Your task to perform on an android device: Open the phone app and click the voicemail tab. Image 0: 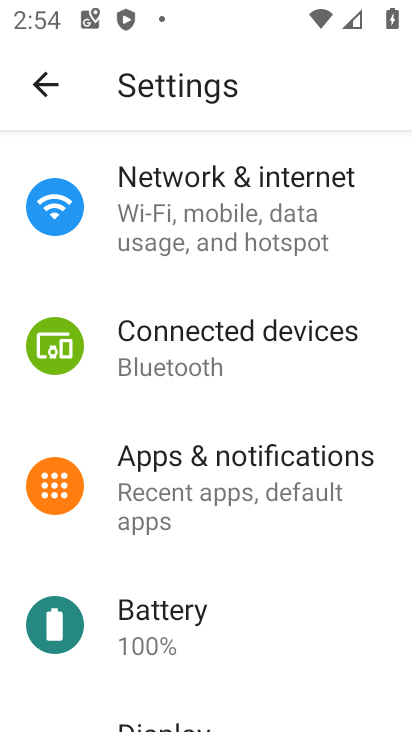
Step 0: press home button
Your task to perform on an android device: Open the phone app and click the voicemail tab. Image 1: 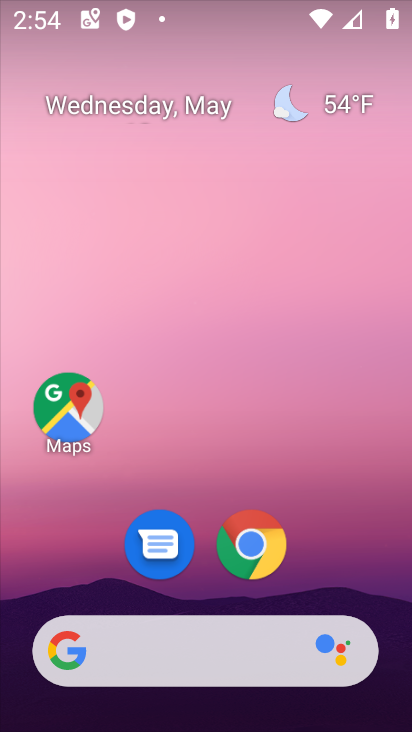
Step 1: drag from (342, 572) to (374, 184)
Your task to perform on an android device: Open the phone app and click the voicemail tab. Image 2: 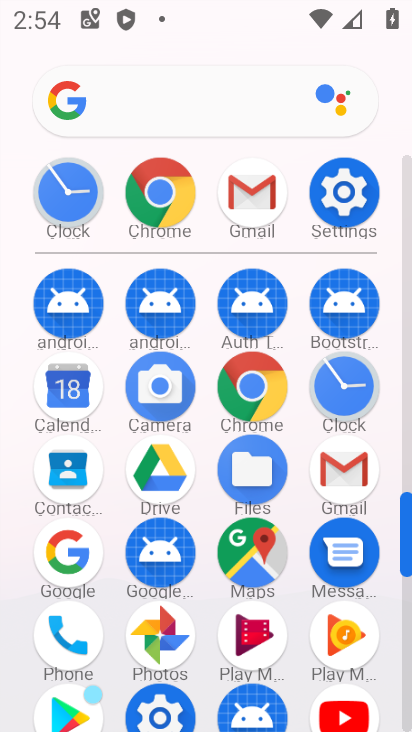
Step 2: click (405, 659)
Your task to perform on an android device: Open the phone app and click the voicemail tab. Image 3: 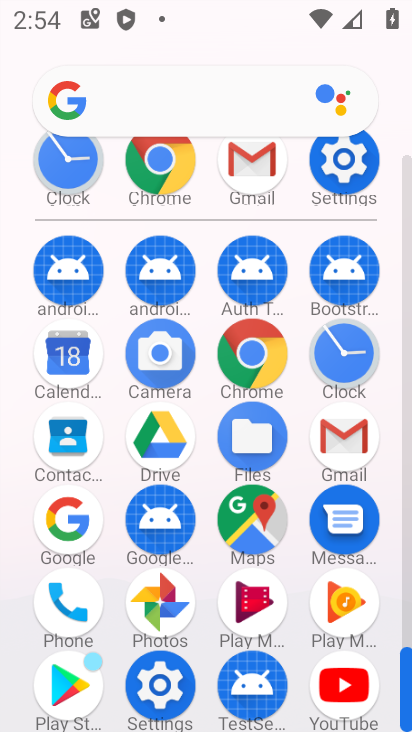
Step 3: click (83, 597)
Your task to perform on an android device: Open the phone app and click the voicemail tab. Image 4: 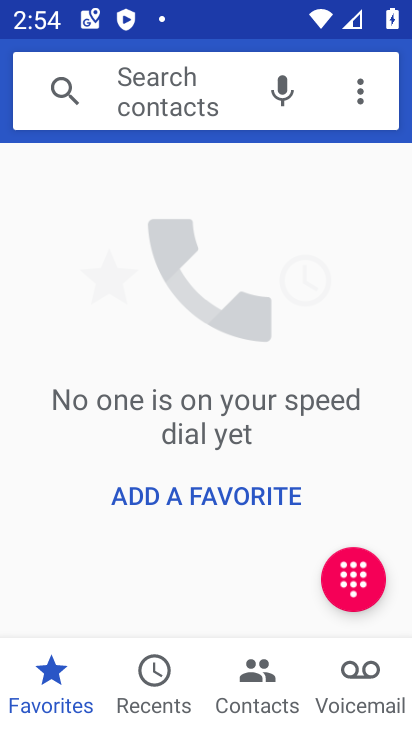
Step 4: click (354, 656)
Your task to perform on an android device: Open the phone app and click the voicemail tab. Image 5: 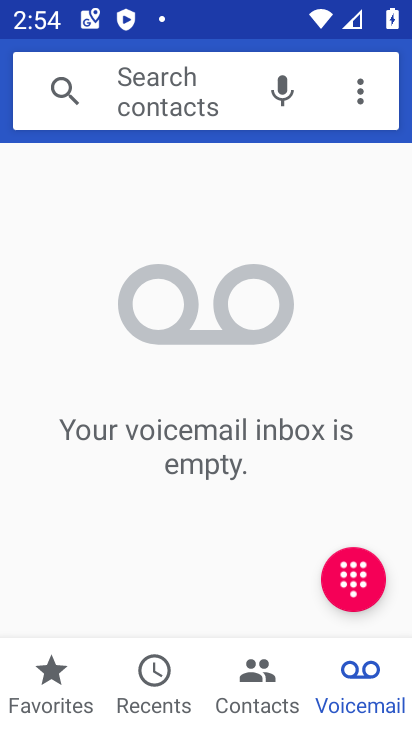
Step 5: task complete